Your task to perform on an android device: Open Wikipedia Image 0: 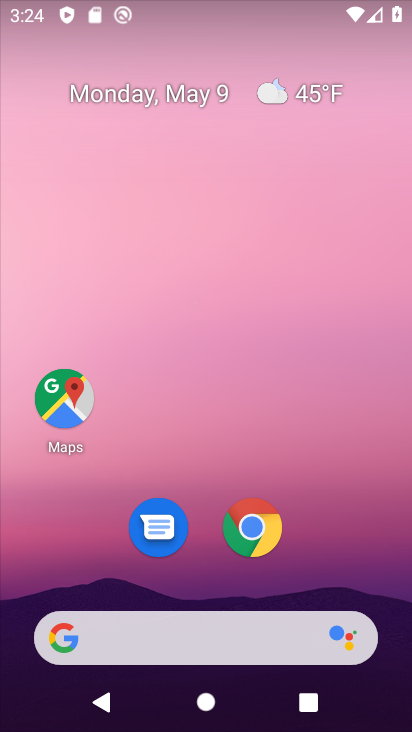
Step 0: click (280, 535)
Your task to perform on an android device: Open Wikipedia Image 1: 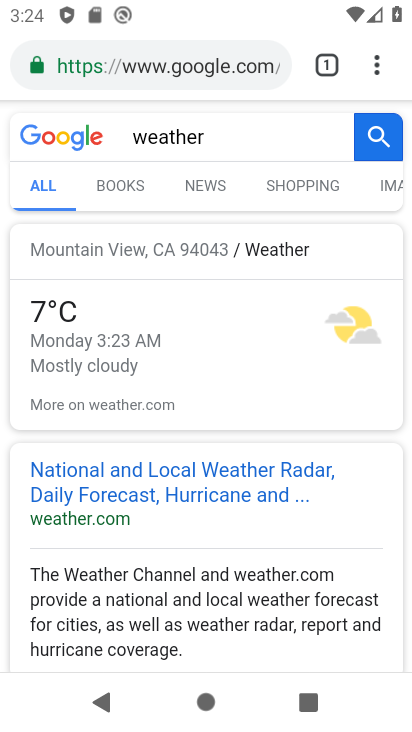
Step 1: click (338, 67)
Your task to perform on an android device: Open Wikipedia Image 2: 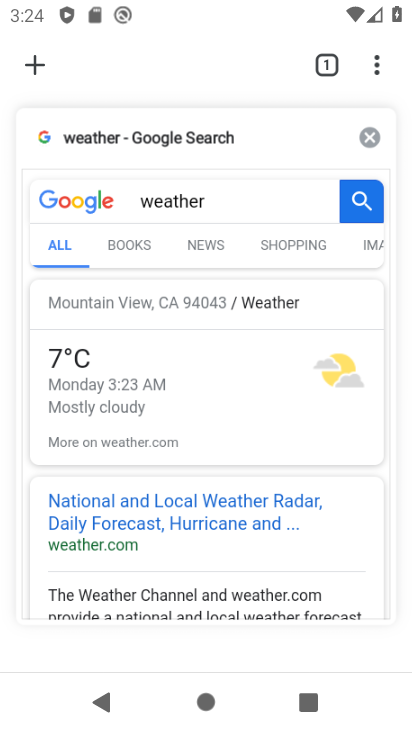
Step 2: click (40, 61)
Your task to perform on an android device: Open Wikipedia Image 3: 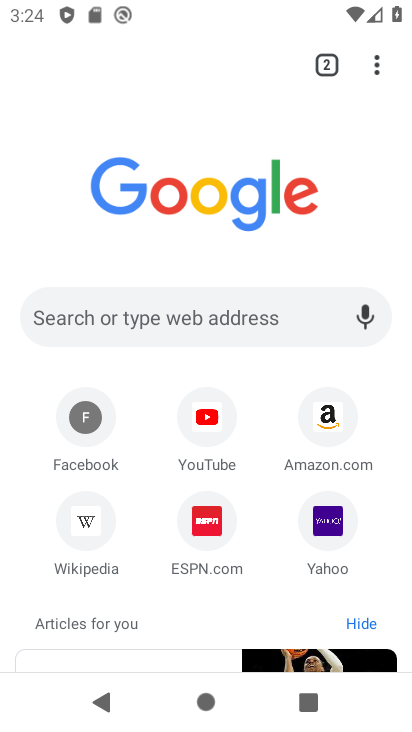
Step 3: click (95, 517)
Your task to perform on an android device: Open Wikipedia Image 4: 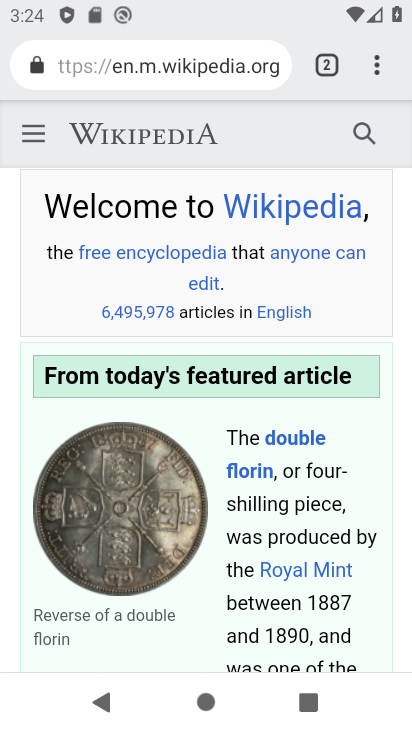
Step 4: task complete